Your task to perform on an android device: delete browsing data in the chrome app Image 0: 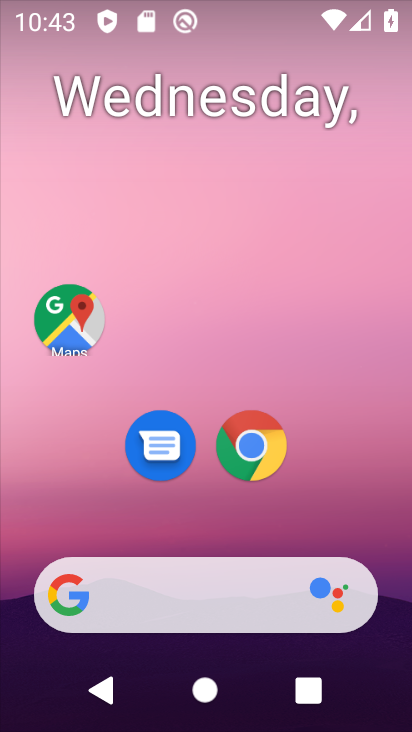
Step 0: click (258, 435)
Your task to perform on an android device: delete browsing data in the chrome app Image 1: 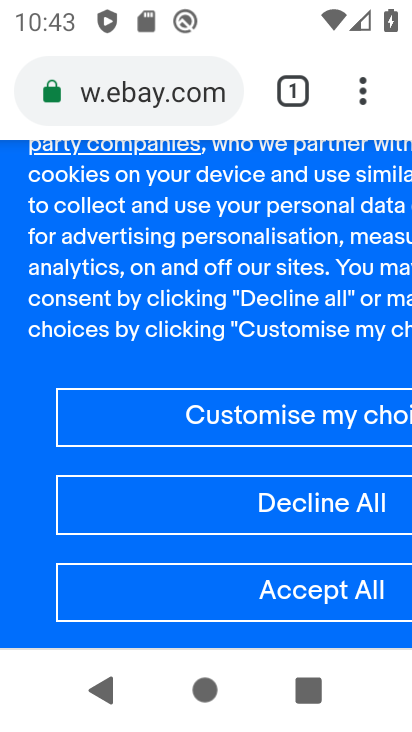
Step 1: drag from (359, 95) to (82, 512)
Your task to perform on an android device: delete browsing data in the chrome app Image 2: 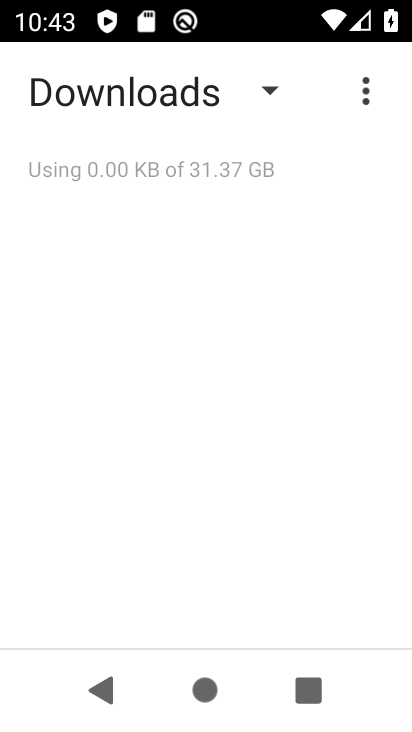
Step 2: press back button
Your task to perform on an android device: delete browsing data in the chrome app Image 3: 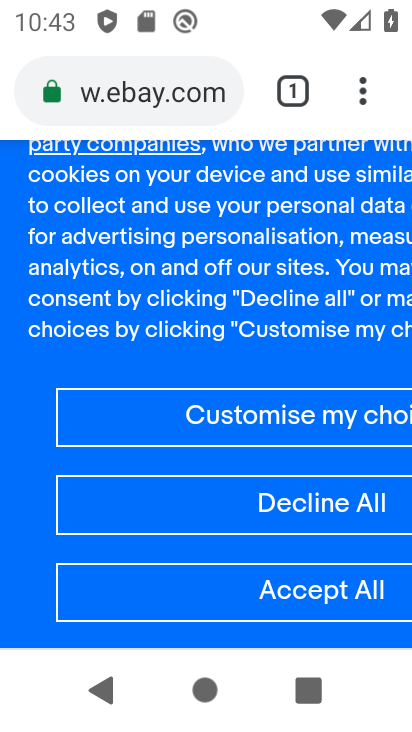
Step 3: drag from (358, 71) to (107, 467)
Your task to perform on an android device: delete browsing data in the chrome app Image 4: 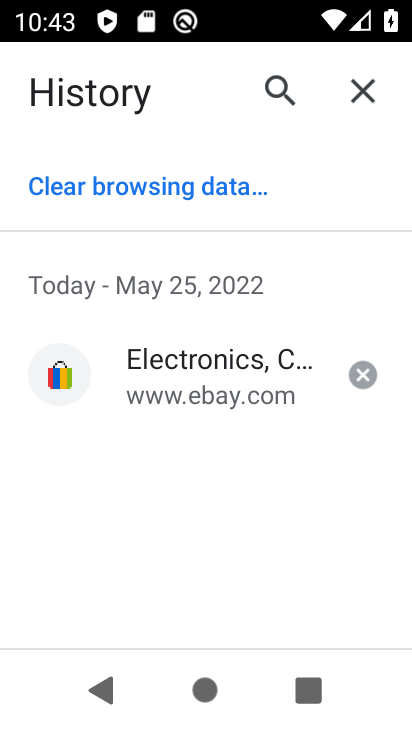
Step 4: click (225, 179)
Your task to perform on an android device: delete browsing data in the chrome app Image 5: 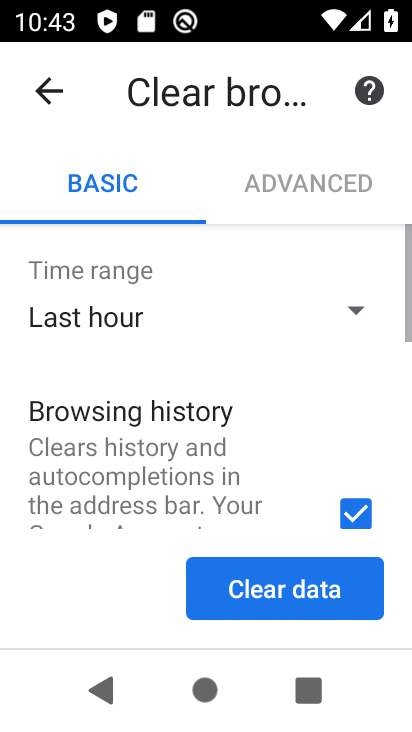
Step 5: click (262, 574)
Your task to perform on an android device: delete browsing data in the chrome app Image 6: 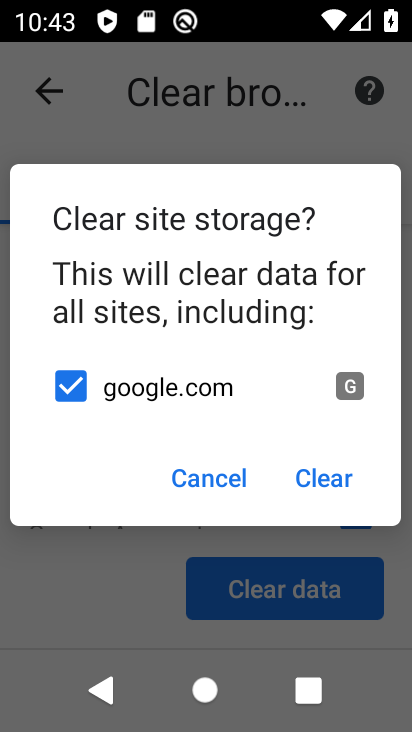
Step 6: click (341, 486)
Your task to perform on an android device: delete browsing data in the chrome app Image 7: 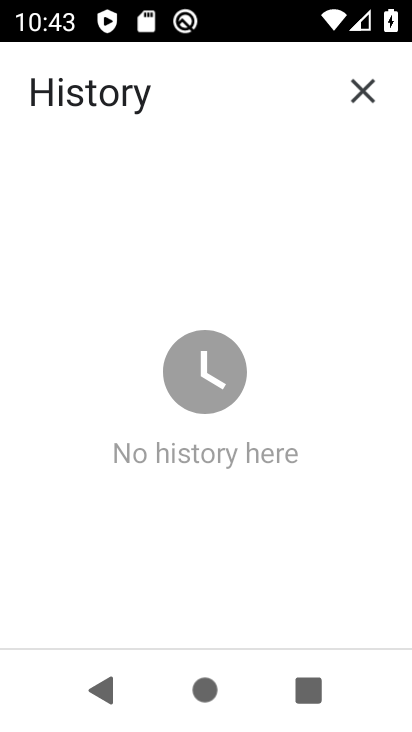
Step 7: task complete